Your task to perform on an android device: What is the news today? Image 0: 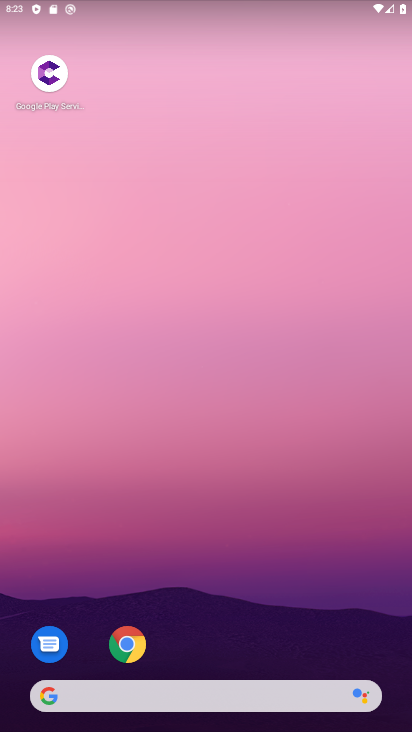
Step 0: drag from (285, 627) to (200, 18)
Your task to perform on an android device: What is the news today? Image 1: 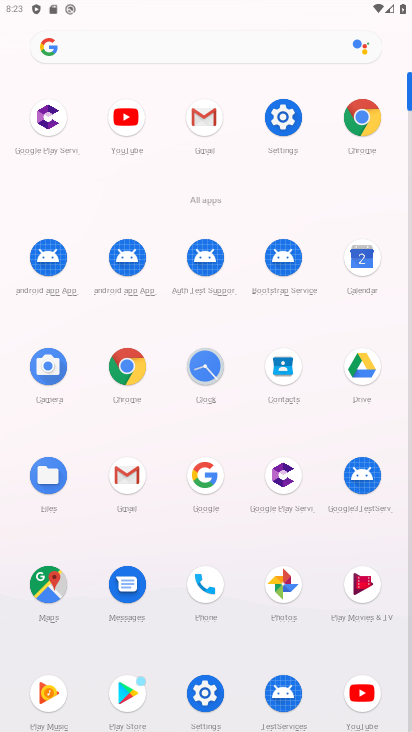
Step 1: drag from (11, 540) to (12, 216)
Your task to perform on an android device: What is the news today? Image 2: 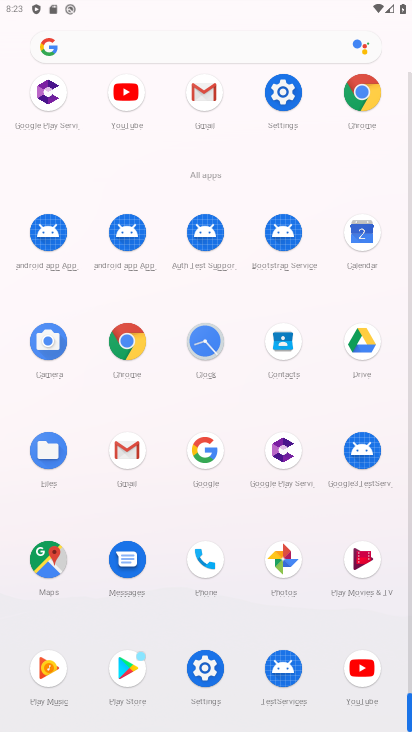
Step 2: click (124, 339)
Your task to perform on an android device: What is the news today? Image 3: 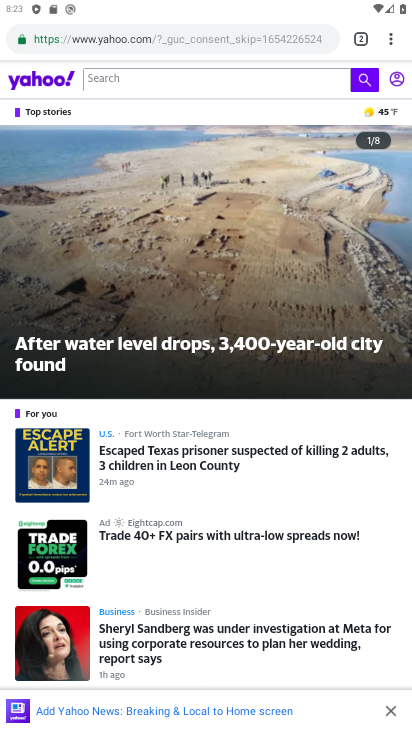
Step 3: click (190, 43)
Your task to perform on an android device: What is the news today? Image 4: 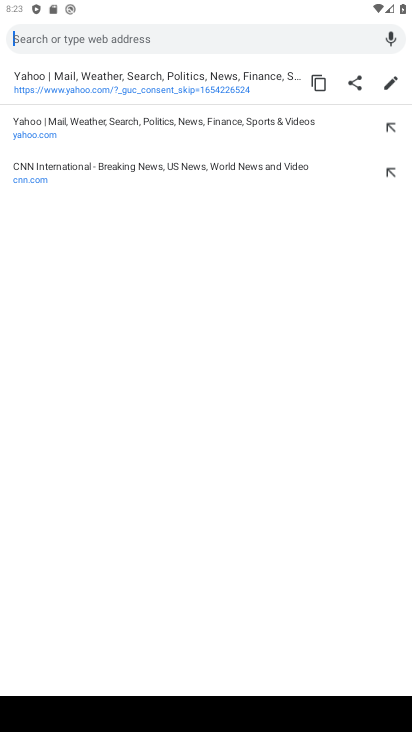
Step 4: type "What is the news today?"
Your task to perform on an android device: What is the news today? Image 5: 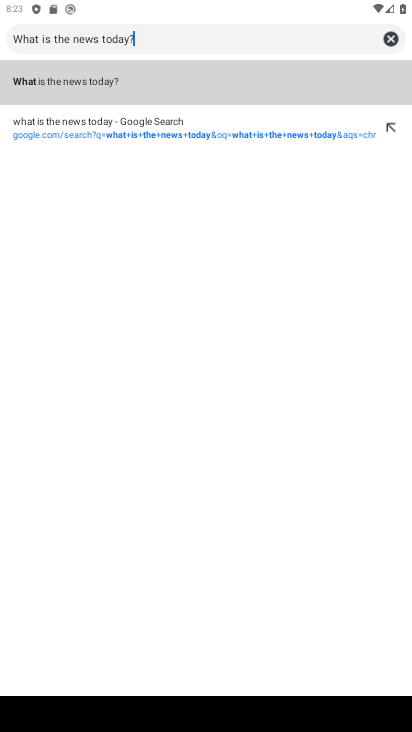
Step 5: type ""
Your task to perform on an android device: What is the news today? Image 6: 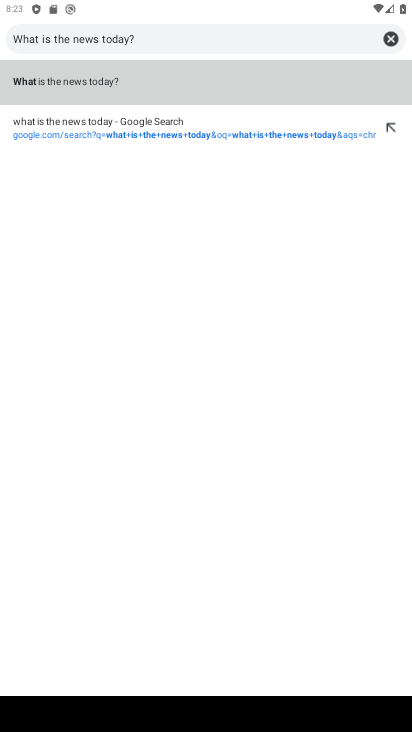
Step 6: click (125, 82)
Your task to perform on an android device: What is the news today? Image 7: 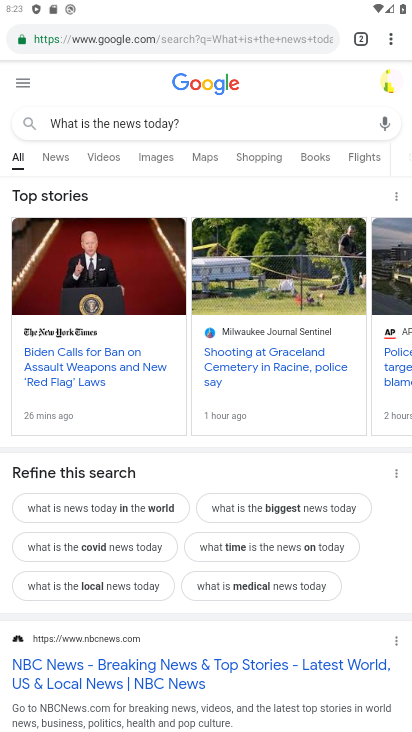
Step 7: task complete